Your task to perform on an android device: open the mobile data screen to see how much data has been used Image 0: 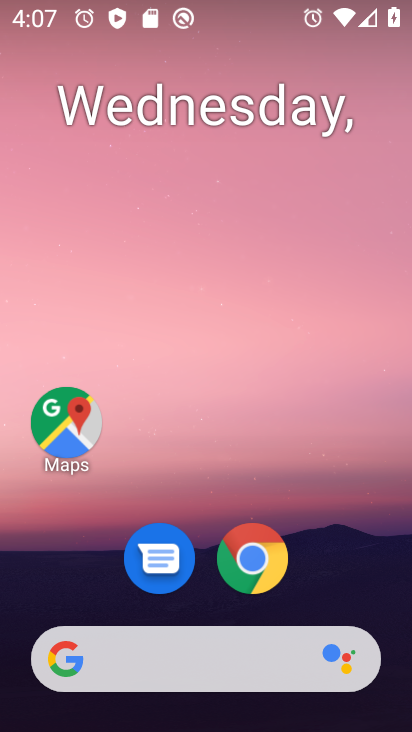
Step 0: drag from (209, 633) to (217, 55)
Your task to perform on an android device: open the mobile data screen to see how much data has been used Image 1: 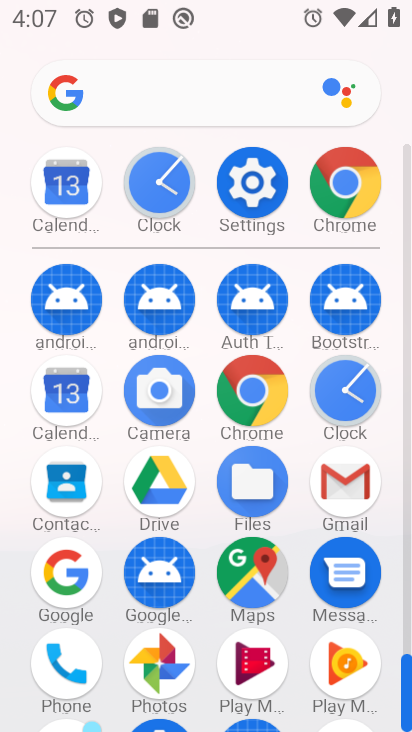
Step 1: click (252, 183)
Your task to perform on an android device: open the mobile data screen to see how much data has been used Image 2: 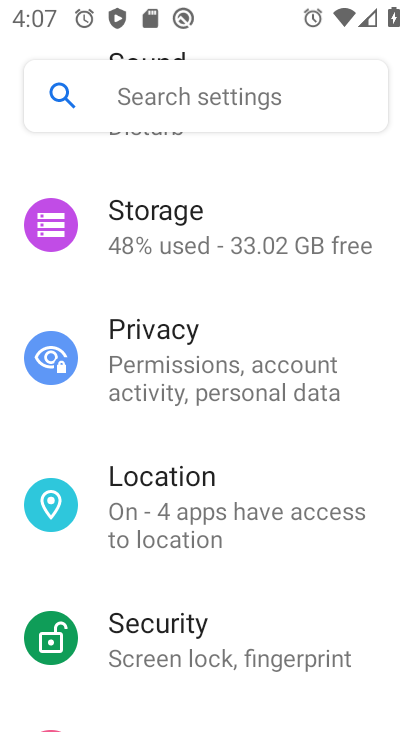
Step 2: drag from (189, 661) to (181, 245)
Your task to perform on an android device: open the mobile data screen to see how much data has been used Image 3: 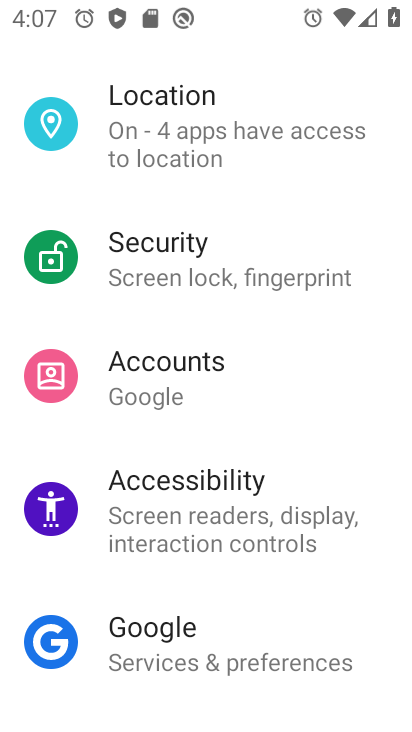
Step 3: drag from (205, 644) to (173, 319)
Your task to perform on an android device: open the mobile data screen to see how much data has been used Image 4: 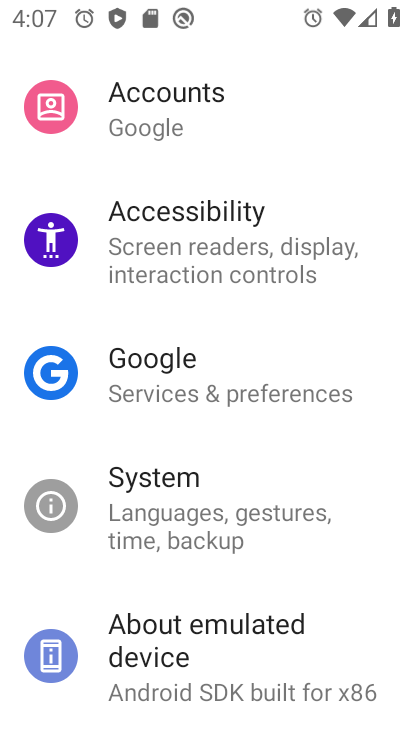
Step 4: drag from (177, 93) to (247, 472)
Your task to perform on an android device: open the mobile data screen to see how much data has been used Image 5: 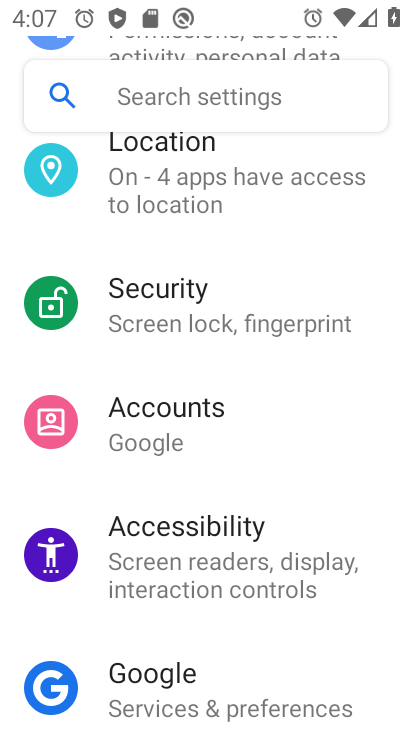
Step 5: drag from (178, 132) to (253, 464)
Your task to perform on an android device: open the mobile data screen to see how much data has been used Image 6: 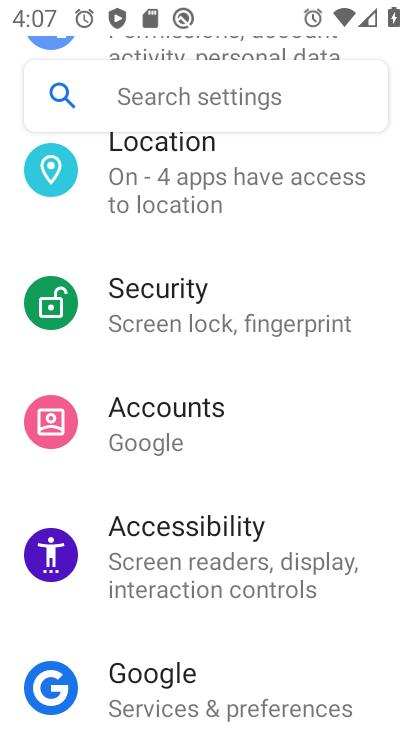
Step 6: drag from (146, 161) to (199, 503)
Your task to perform on an android device: open the mobile data screen to see how much data has been used Image 7: 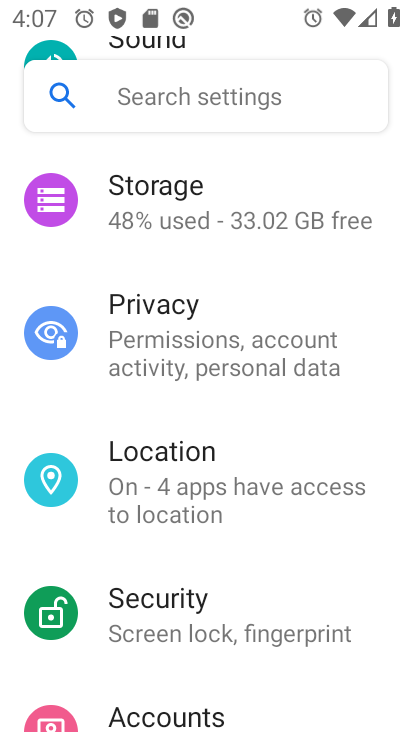
Step 7: drag from (129, 173) to (213, 581)
Your task to perform on an android device: open the mobile data screen to see how much data has been used Image 8: 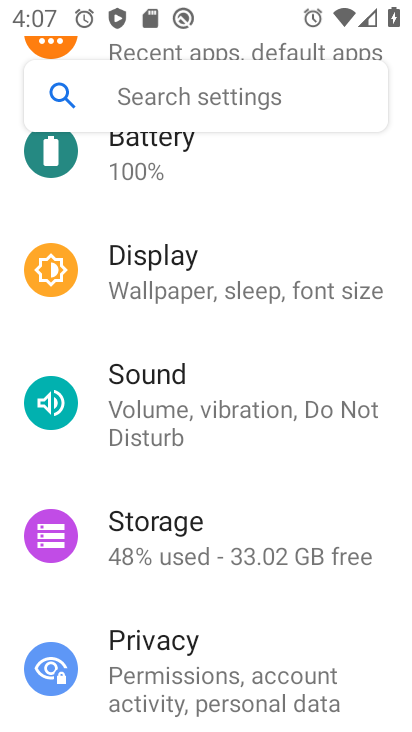
Step 8: drag from (124, 181) to (205, 589)
Your task to perform on an android device: open the mobile data screen to see how much data has been used Image 9: 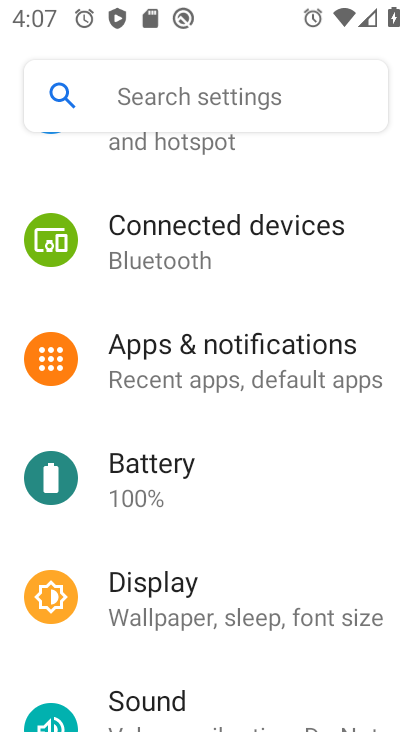
Step 9: drag from (138, 194) to (202, 583)
Your task to perform on an android device: open the mobile data screen to see how much data has been used Image 10: 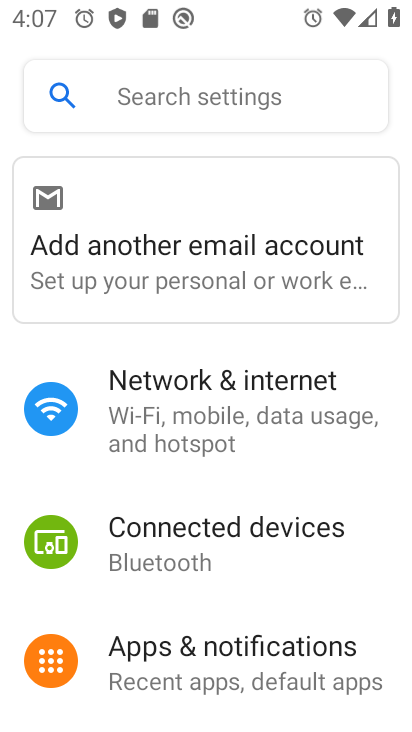
Step 10: click (163, 411)
Your task to perform on an android device: open the mobile data screen to see how much data has been used Image 11: 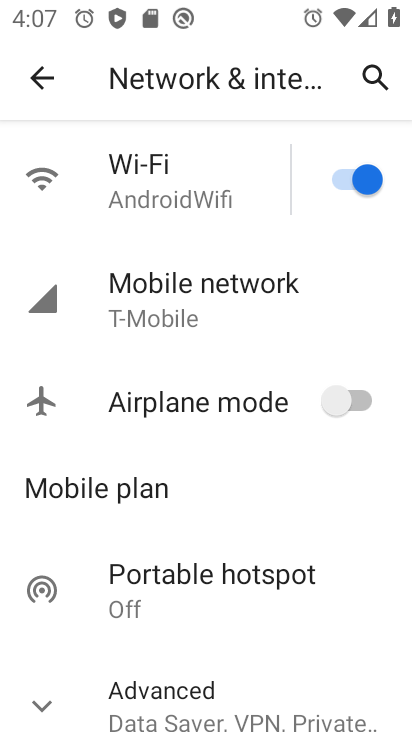
Step 11: click (166, 293)
Your task to perform on an android device: open the mobile data screen to see how much data has been used Image 12: 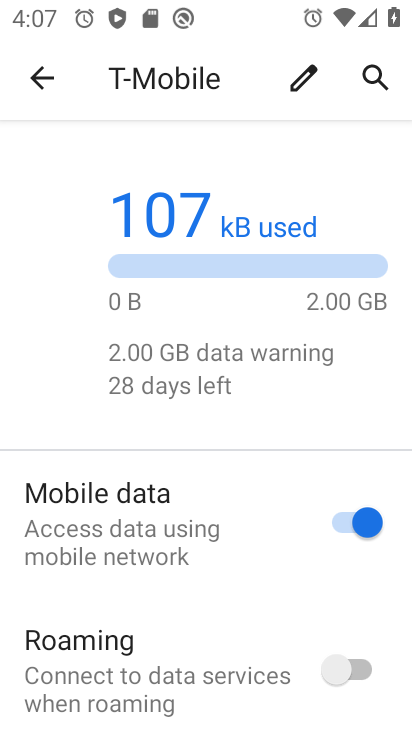
Step 12: task complete